Your task to perform on an android device: open app "DuckDuckGo Privacy Browser" (install if not already installed) and enter user name: "cleaving@outlook.com" and password: "freighters" Image 0: 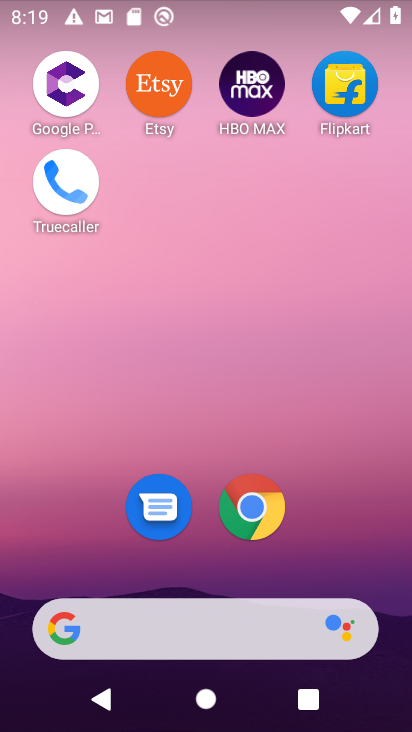
Step 0: drag from (200, 559) to (264, 14)
Your task to perform on an android device: open app "DuckDuckGo Privacy Browser" (install if not already installed) and enter user name: "cleaving@outlook.com" and password: "freighters" Image 1: 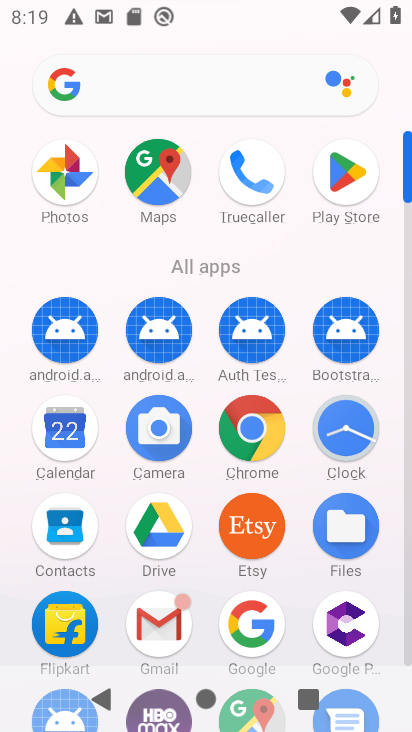
Step 1: click (352, 199)
Your task to perform on an android device: open app "DuckDuckGo Privacy Browser" (install if not already installed) and enter user name: "cleaving@outlook.com" and password: "freighters" Image 2: 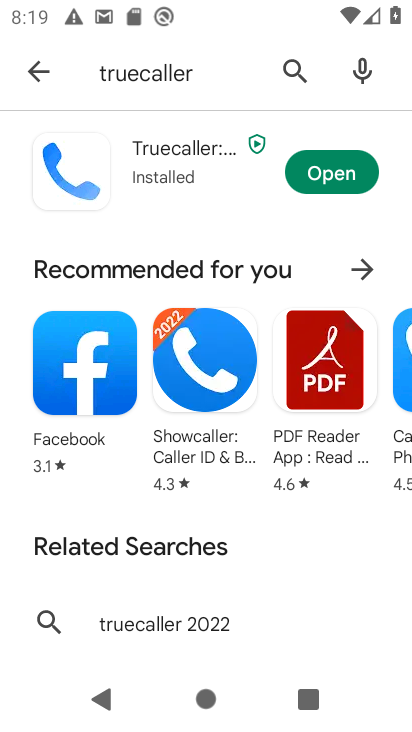
Step 2: click (167, 81)
Your task to perform on an android device: open app "DuckDuckGo Privacy Browser" (install if not already installed) and enter user name: "cleaving@outlook.com" and password: "freighters" Image 3: 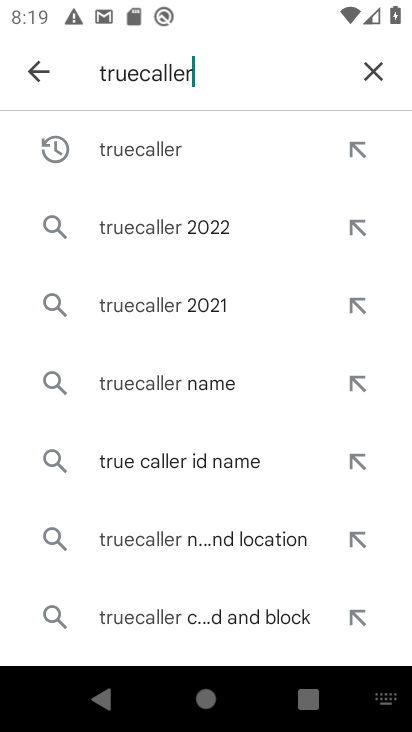
Step 3: click (364, 66)
Your task to perform on an android device: open app "DuckDuckGo Privacy Browser" (install if not already installed) and enter user name: "cleaving@outlook.com" and password: "freighters" Image 4: 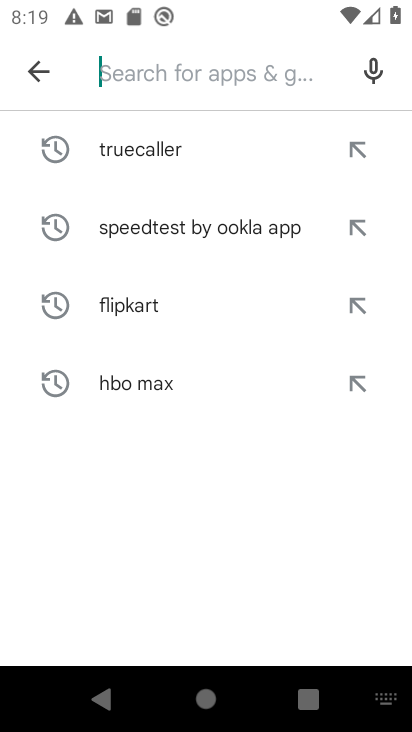
Step 4: type "duckduckgo"
Your task to perform on an android device: open app "DuckDuckGo Privacy Browser" (install if not already installed) and enter user name: "cleaving@outlook.com" and password: "freighters" Image 5: 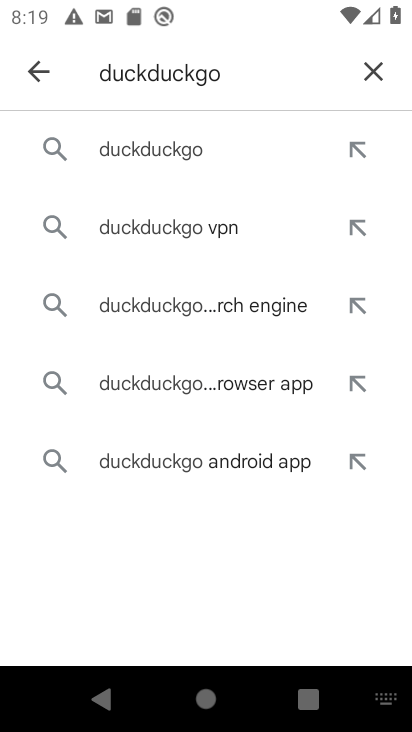
Step 5: click (192, 144)
Your task to perform on an android device: open app "DuckDuckGo Privacy Browser" (install if not already installed) and enter user name: "cleaving@outlook.com" and password: "freighters" Image 6: 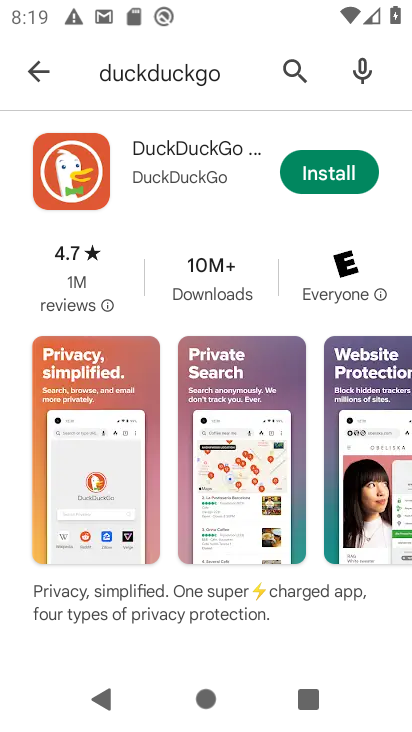
Step 6: click (348, 180)
Your task to perform on an android device: open app "DuckDuckGo Privacy Browser" (install if not already installed) and enter user name: "cleaving@outlook.com" and password: "freighters" Image 7: 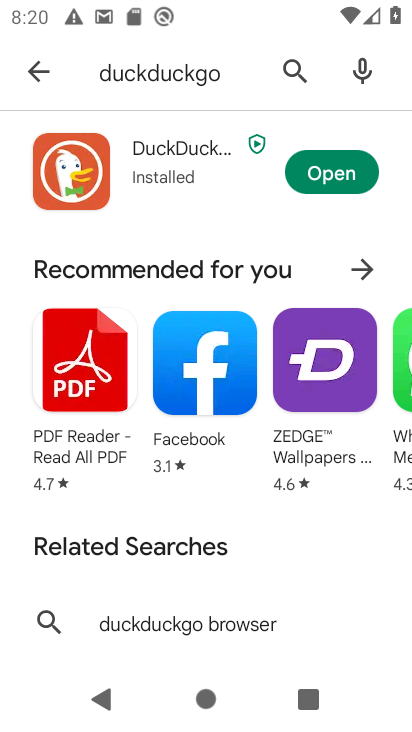
Step 7: click (312, 186)
Your task to perform on an android device: open app "DuckDuckGo Privacy Browser" (install if not already installed) and enter user name: "cleaving@outlook.com" and password: "freighters" Image 8: 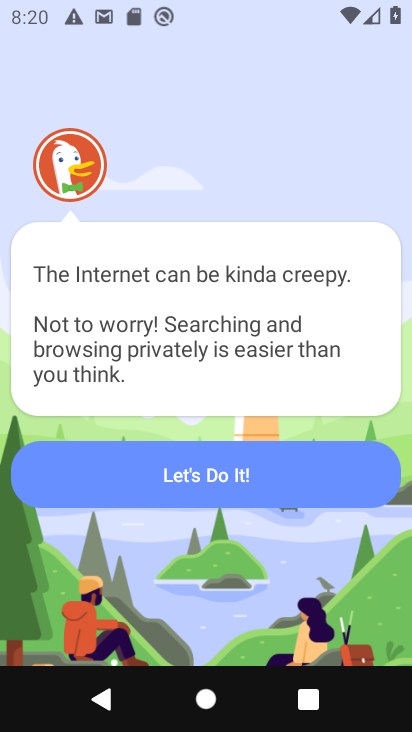
Step 8: click (225, 482)
Your task to perform on an android device: open app "DuckDuckGo Privacy Browser" (install if not already installed) and enter user name: "cleaving@outlook.com" and password: "freighters" Image 9: 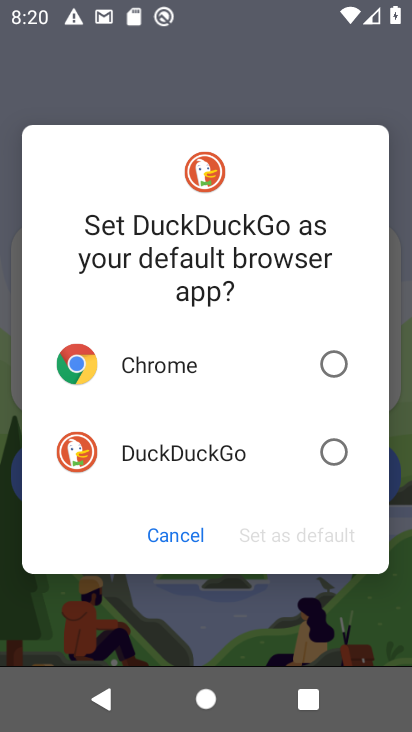
Step 9: click (220, 460)
Your task to perform on an android device: open app "DuckDuckGo Privacy Browser" (install if not already installed) and enter user name: "cleaving@outlook.com" and password: "freighters" Image 10: 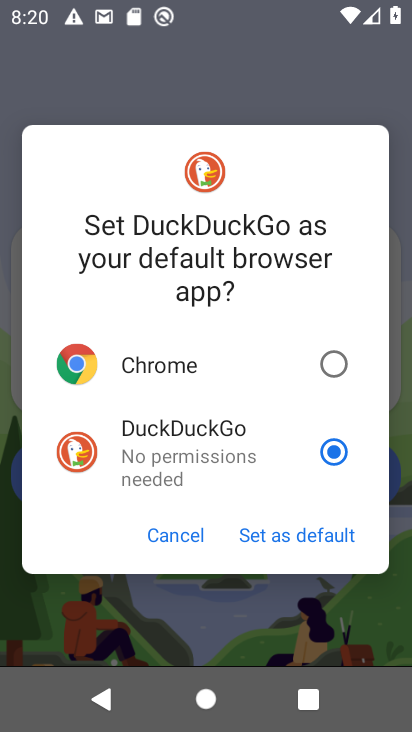
Step 10: click (262, 540)
Your task to perform on an android device: open app "DuckDuckGo Privacy Browser" (install if not already installed) and enter user name: "cleaving@outlook.com" and password: "freighters" Image 11: 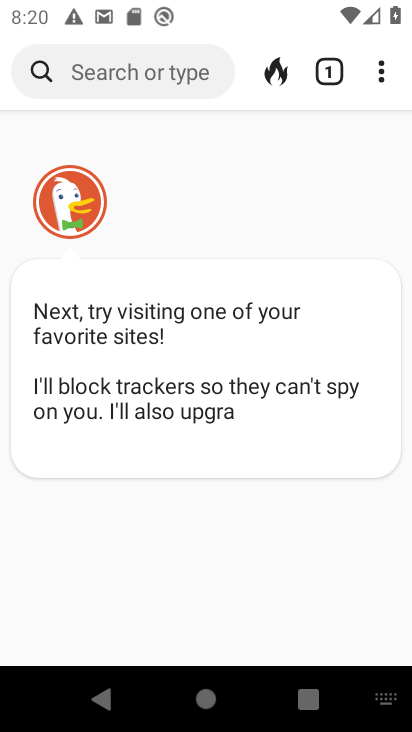
Step 11: click (383, 68)
Your task to perform on an android device: open app "DuckDuckGo Privacy Browser" (install if not already installed) and enter user name: "cleaving@outlook.com" and password: "freighters" Image 12: 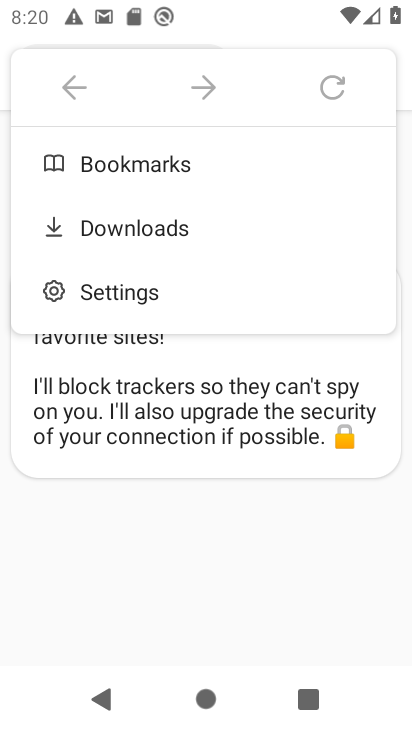
Step 12: click (106, 297)
Your task to perform on an android device: open app "DuckDuckGo Privacy Browser" (install if not already installed) and enter user name: "cleaving@outlook.com" and password: "freighters" Image 13: 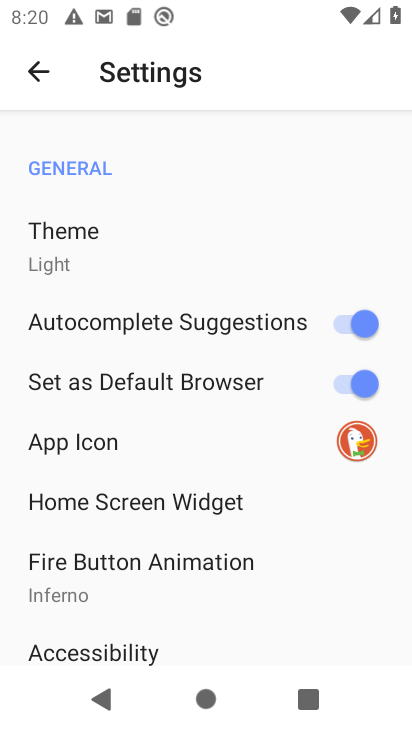
Step 13: task complete